Your task to perform on an android device: move a message to another label in the gmail app Image 0: 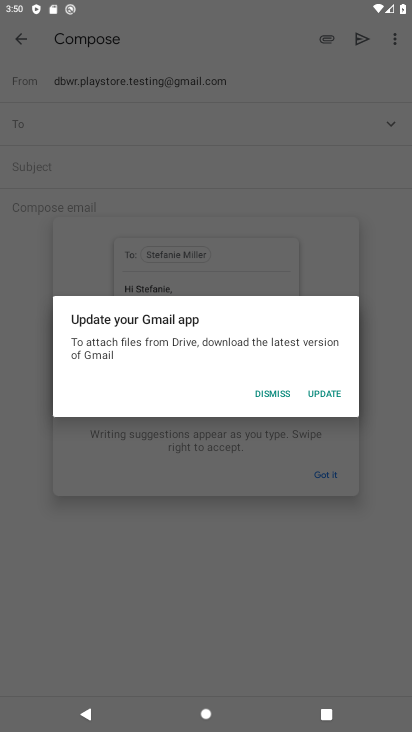
Step 0: press home button
Your task to perform on an android device: move a message to another label in the gmail app Image 1: 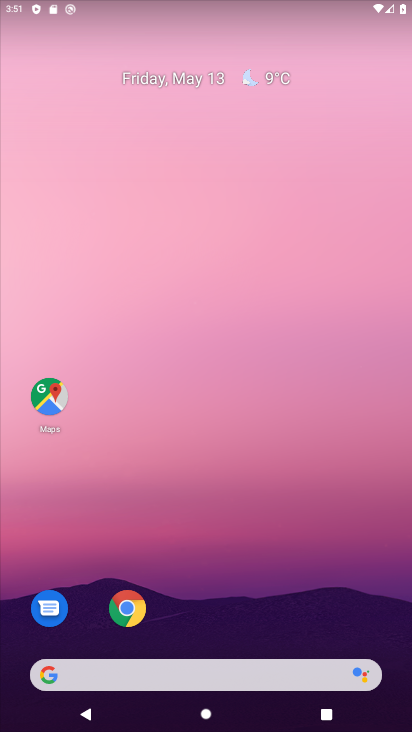
Step 1: drag from (248, 487) to (221, 90)
Your task to perform on an android device: move a message to another label in the gmail app Image 2: 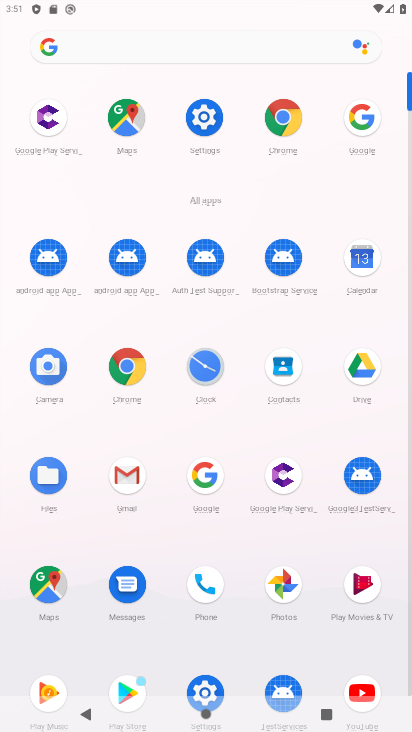
Step 2: click (119, 478)
Your task to perform on an android device: move a message to another label in the gmail app Image 3: 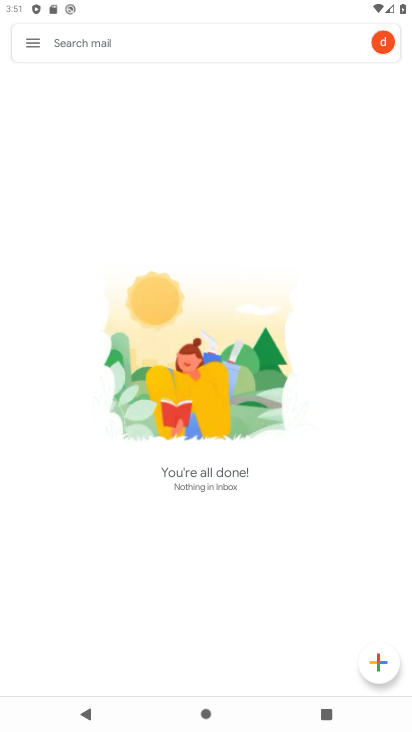
Step 3: click (30, 39)
Your task to perform on an android device: move a message to another label in the gmail app Image 4: 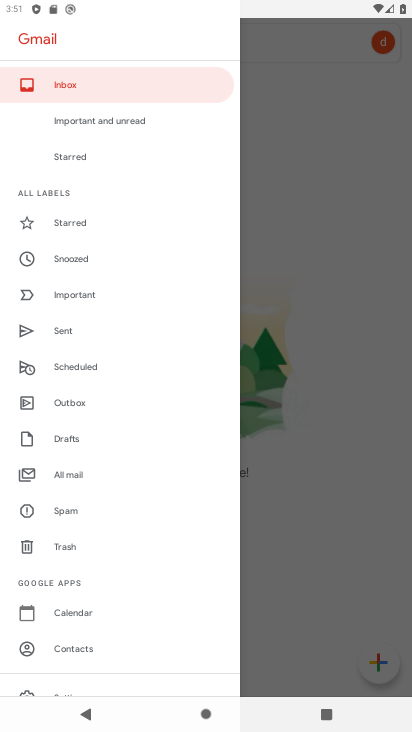
Step 4: click (77, 470)
Your task to perform on an android device: move a message to another label in the gmail app Image 5: 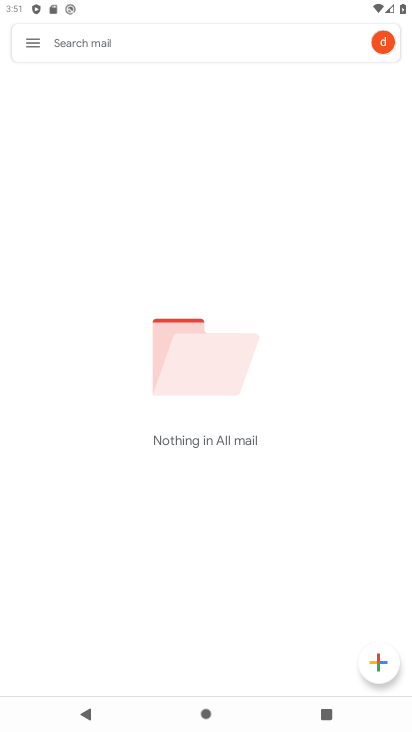
Step 5: task complete